Your task to perform on an android device: star an email in the gmail app Image 0: 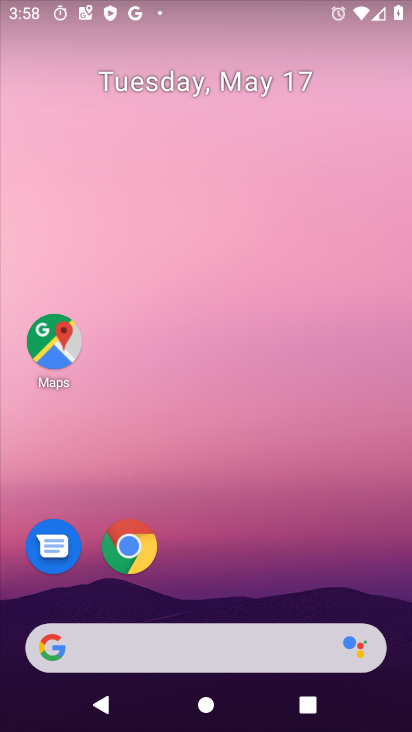
Step 0: drag from (406, 638) to (398, 406)
Your task to perform on an android device: star an email in the gmail app Image 1: 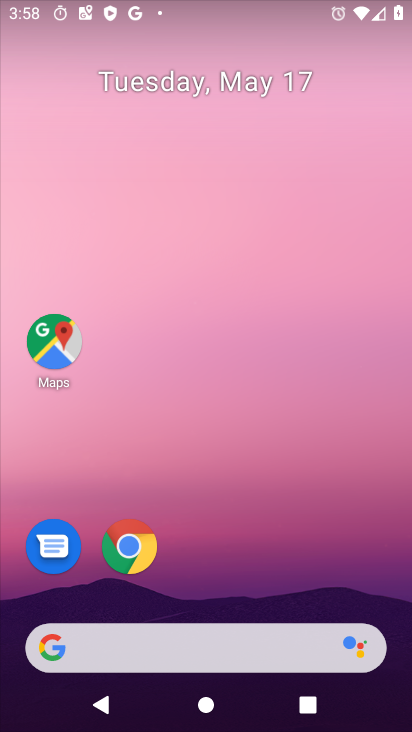
Step 1: drag from (404, 602) to (362, 243)
Your task to perform on an android device: star an email in the gmail app Image 2: 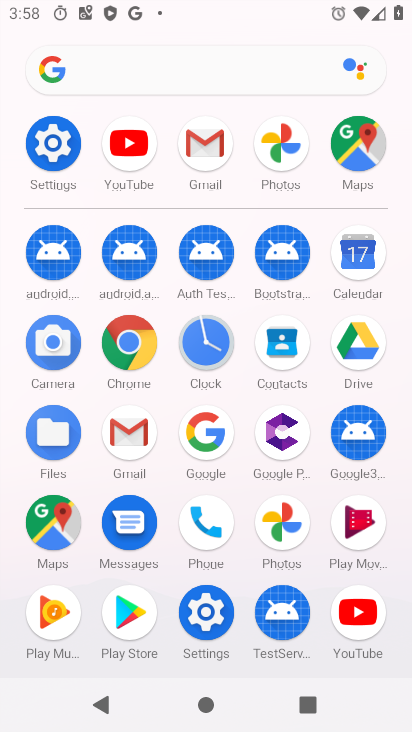
Step 2: click (125, 439)
Your task to perform on an android device: star an email in the gmail app Image 3: 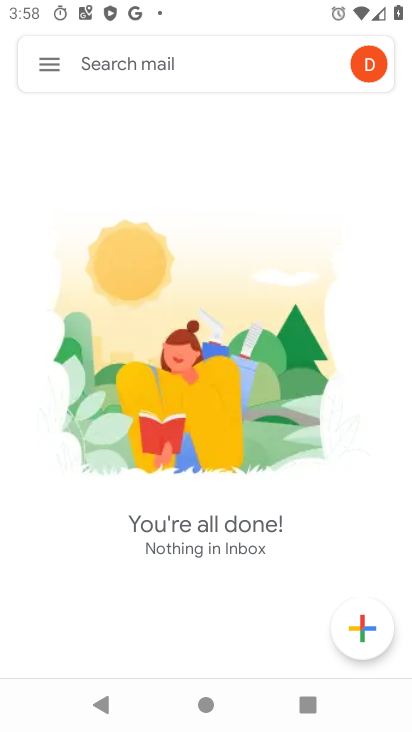
Step 3: click (56, 66)
Your task to perform on an android device: star an email in the gmail app Image 4: 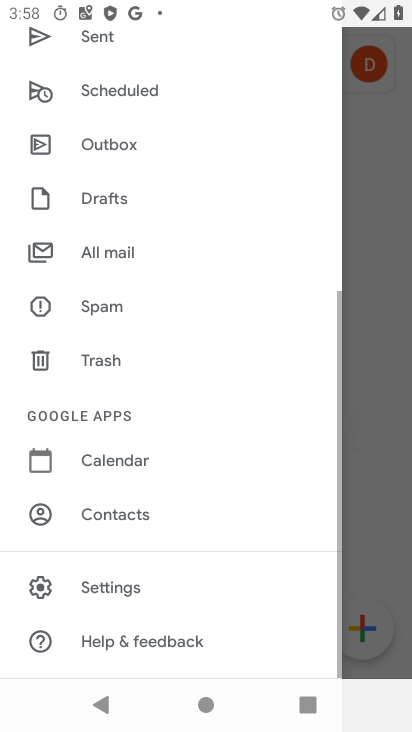
Step 4: drag from (272, 344) to (286, 480)
Your task to perform on an android device: star an email in the gmail app Image 5: 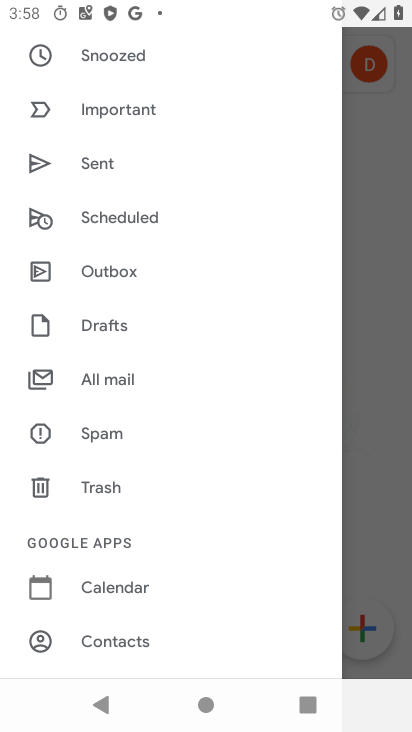
Step 5: drag from (239, 195) to (241, 445)
Your task to perform on an android device: star an email in the gmail app Image 6: 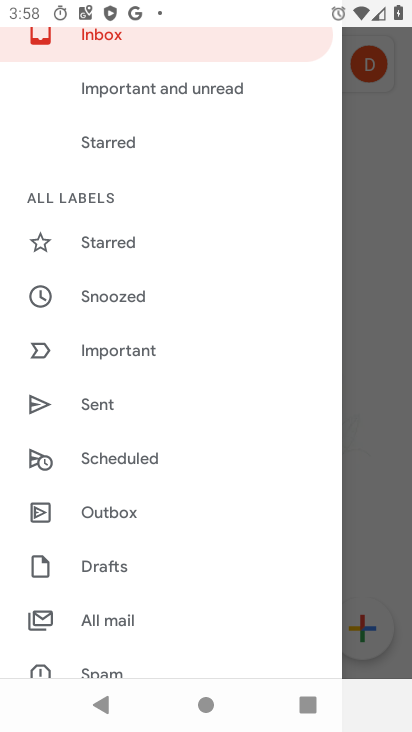
Step 6: click (120, 24)
Your task to perform on an android device: star an email in the gmail app Image 7: 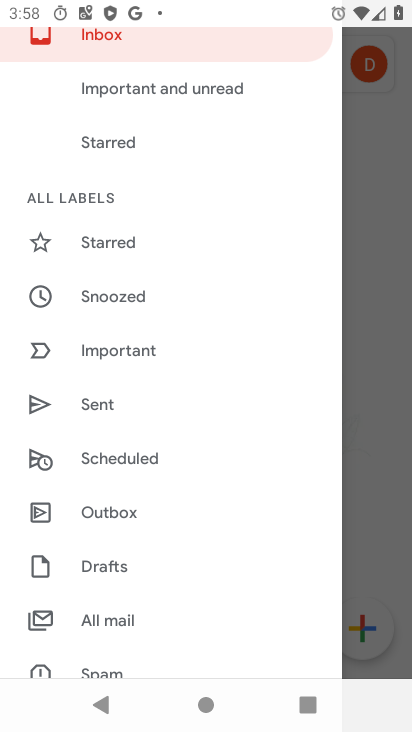
Step 7: click (135, 50)
Your task to perform on an android device: star an email in the gmail app Image 8: 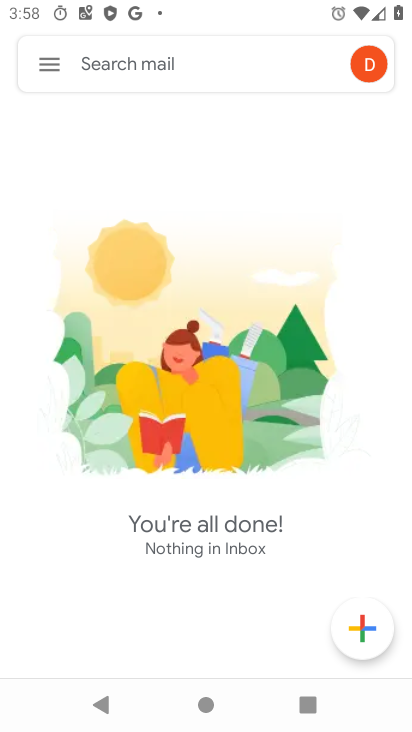
Step 8: task complete